Your task to perform on an android device: Go to Amazon Image 0: 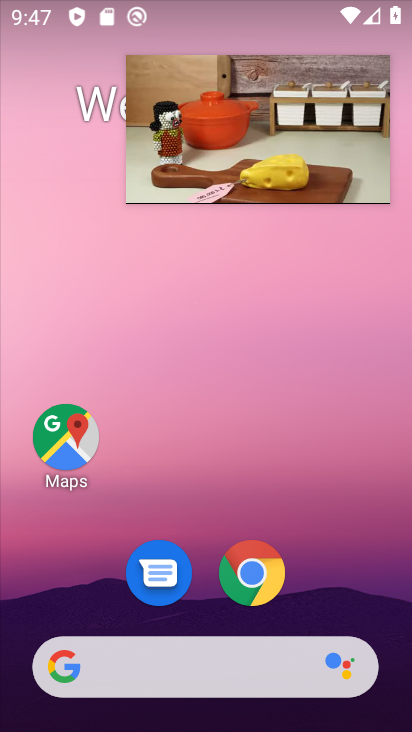
Step 0: drag from (387, 600) to (380, 247)
Your task to perform on an android device: Go to Amazon Image 1: 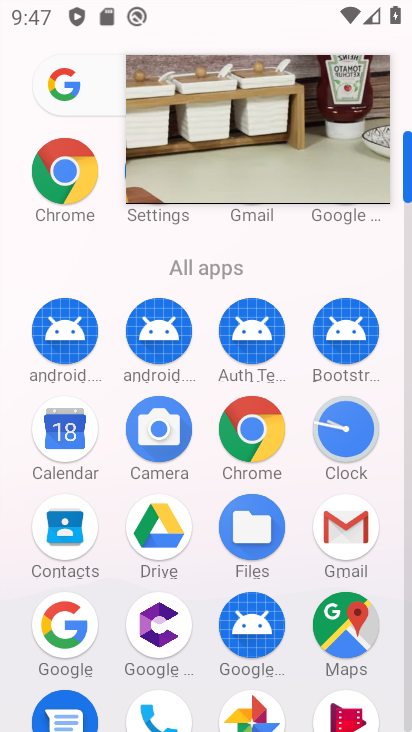
Step 1: click (253, 455)
Your task to perform on an android device: Go to Amazon Image 2: 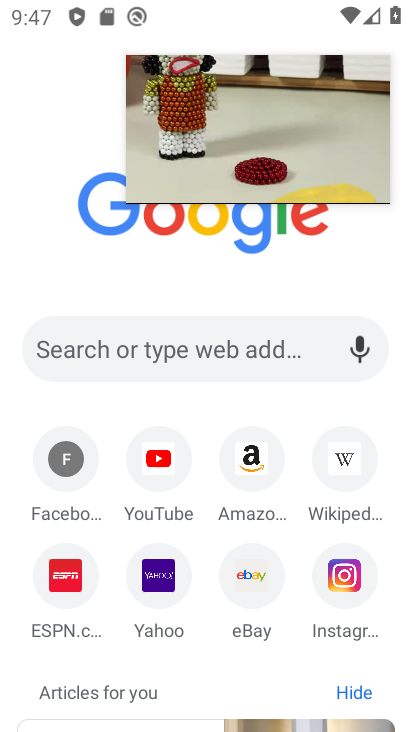
Step 2: click (255, 484)
Your task to perform on an android device: Go to Amazon Image 3: 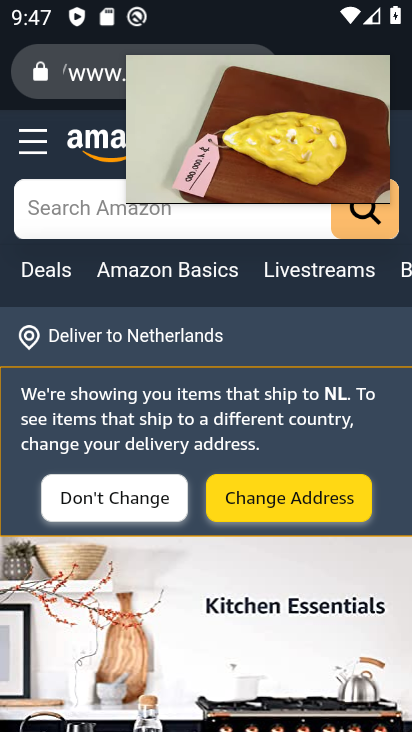
Step 3: task complete